Your task to perform on an android device: Search for Mexican restaurants on Maps Image 0: 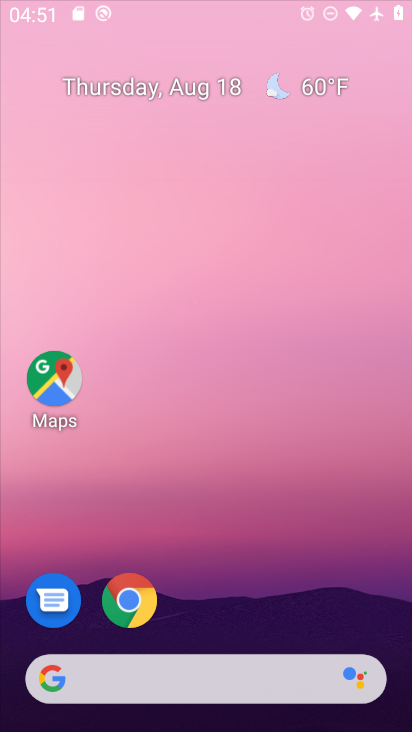
Step 0: press home button
Your task to perform on an android device: Search for Mexican restaurants on Maps Image 1: 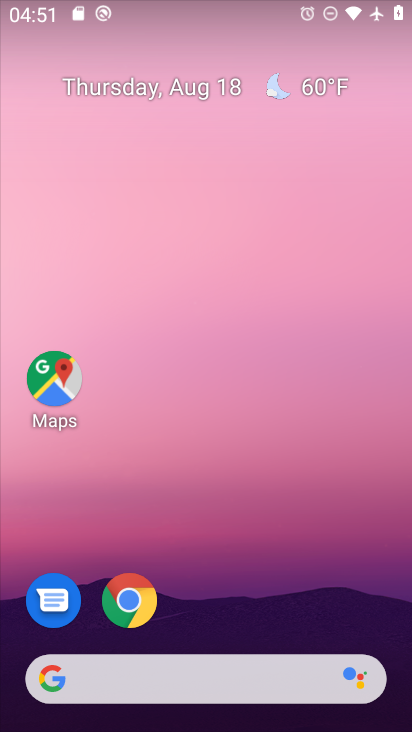
Step 1: click (49, 387)
Your task to perform on an android device: Search for Mexican restaurants on Maps Image 2: 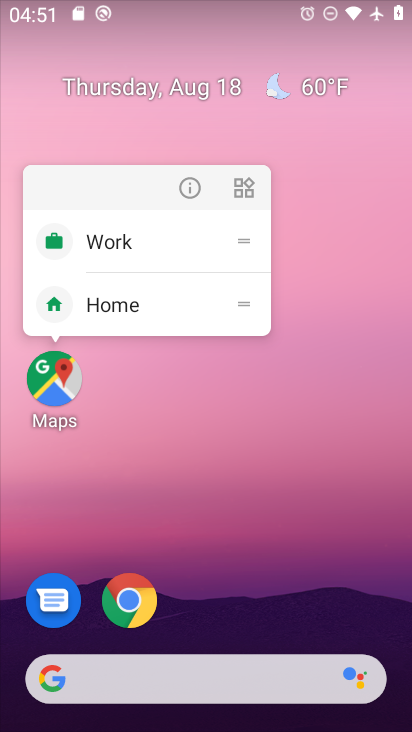
Step 2: click (49, 387)
Your task to perform on an android device: Search for Mexican restaurants on Maps Image 3: 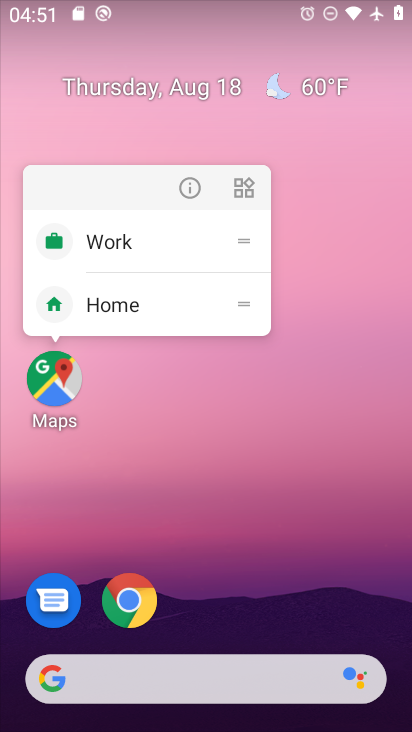
Step 3: click (49, 387)
Your task to perform on an android device: Search for Mexican restaurants on Maps Image 4: 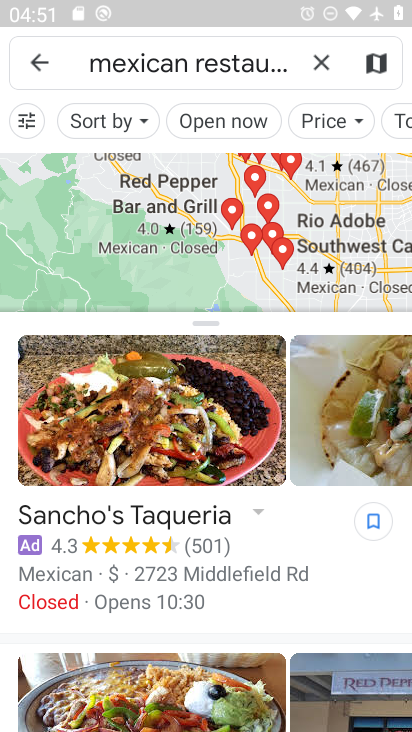
Step 4: task complete